Your task to perform on an android device: turn smart compose on in the gmail app Image 0: 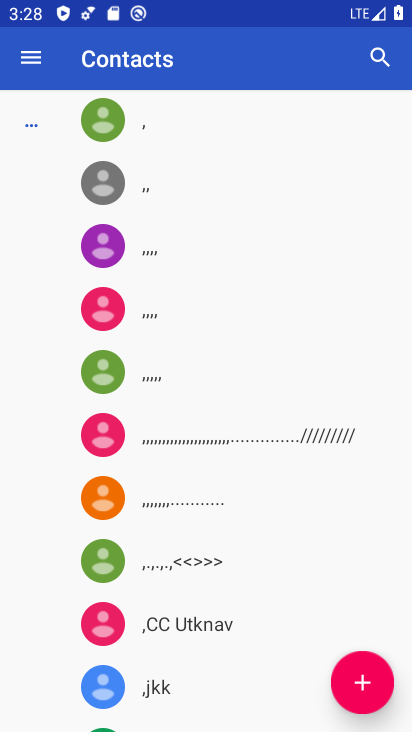
Step 0: press home button
Your task to perform on an android device: turn smart compose on in the gmail app Image 1: 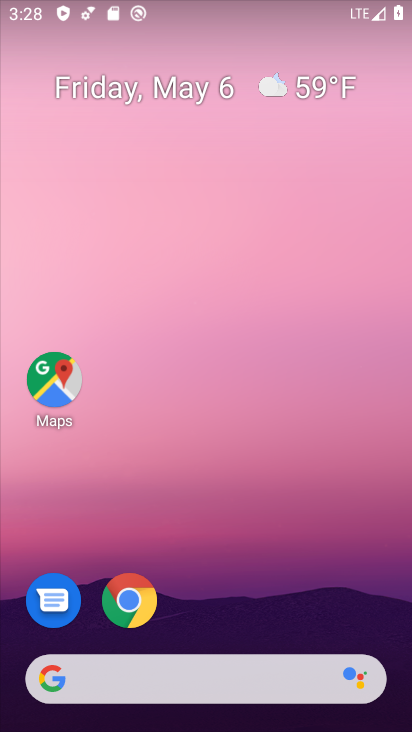
Step 1: drag from (211, 618) to (260, 88)
Your task to perform on an android device: turn smart compose on in the gmail app Image 2: 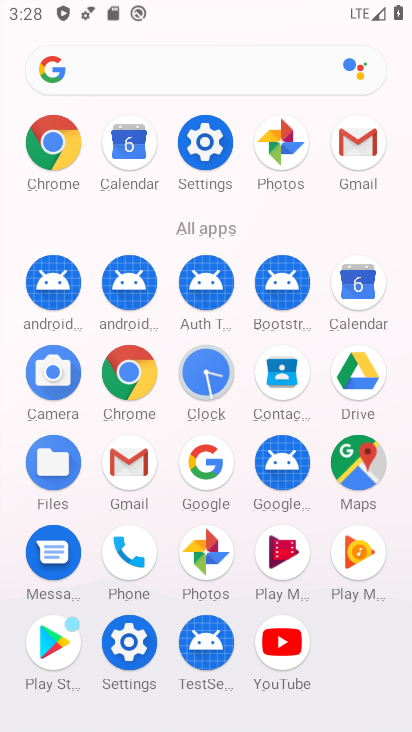
Step 2: click (141, 462)
Your task to perform on an android device: turn smart compose on in the gmail app Image 3: 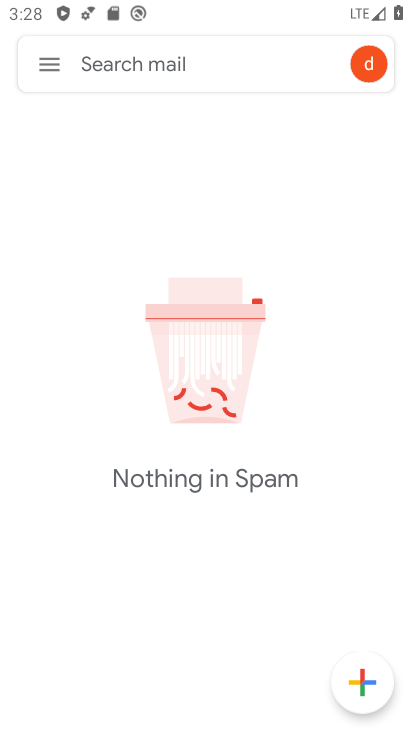
Step 3: click (50, 63)
Your task to perform on an android device: turn smart compose on in the gmail app Image 4: 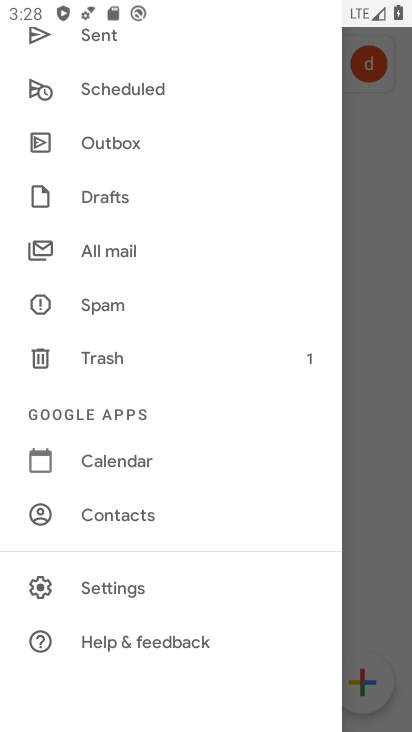
Step 4: click (147, 581)
Your task to perform on an android device: turn smart compose on in the gmail app Image 5: 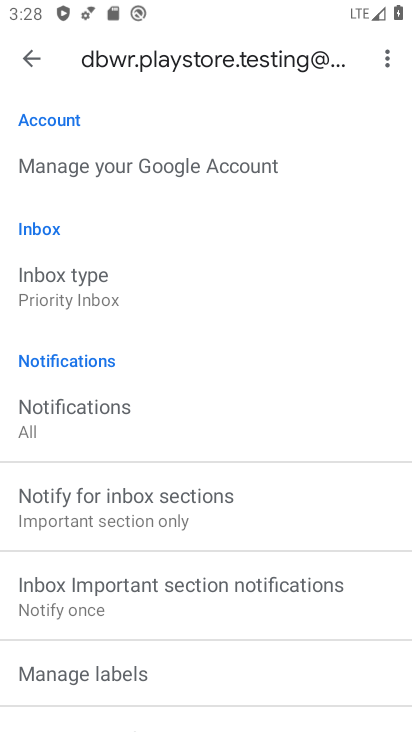
Step 5: drag from (159, 503) to (219, 101)
Your task to perform on an android device: turn smart compose on in the gmail app Image 6: 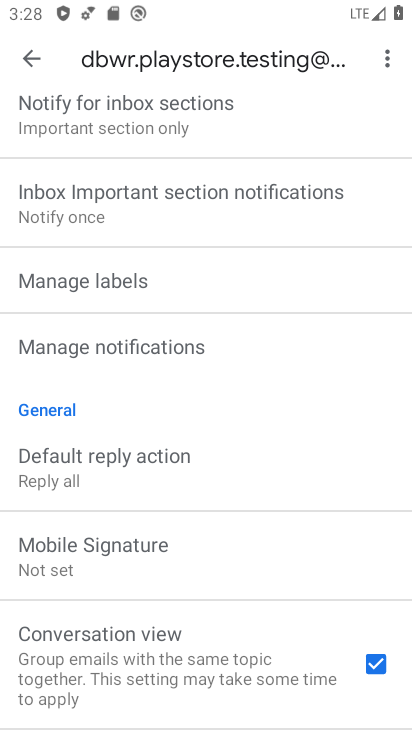
Step 6: drag from (200, 575) to (247, 164)
Your task to perform on an android device: turn smart compose on in the gmail app Image 7: 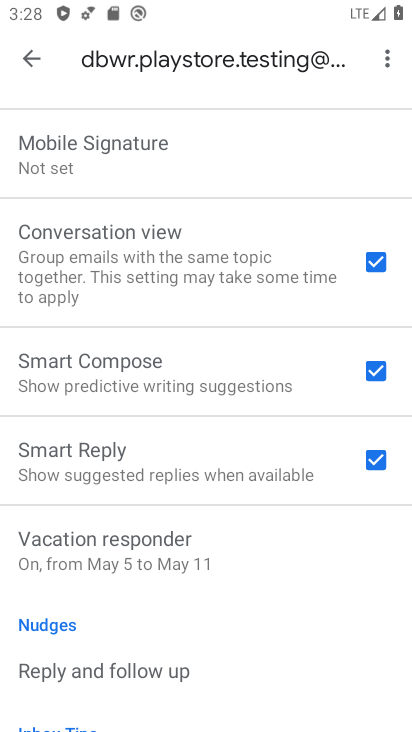
Step 7: click (350, 365)
Your task to perform on an android device: turn smart compose on in the gmail app Image 8: 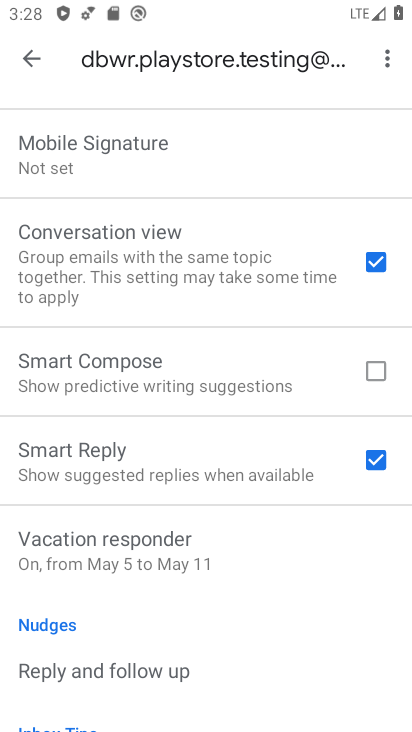
Step 8: click (371, 359)
Your task to perform on an android device: turn smart compose on in the gmail app Image 9: 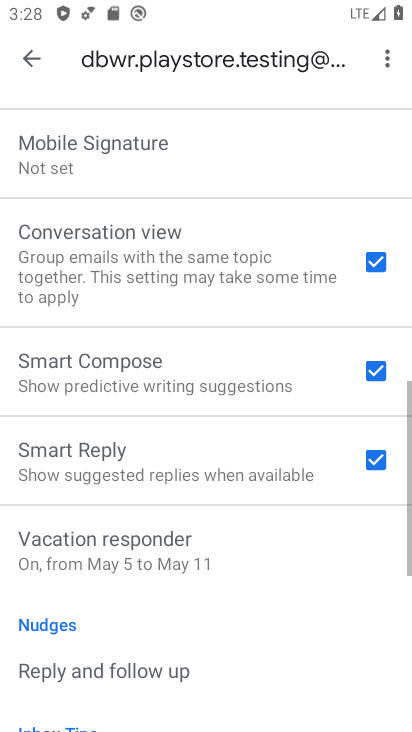
Step 9: task complete